Your task to perform on an android device: open wifi settings Image 0: 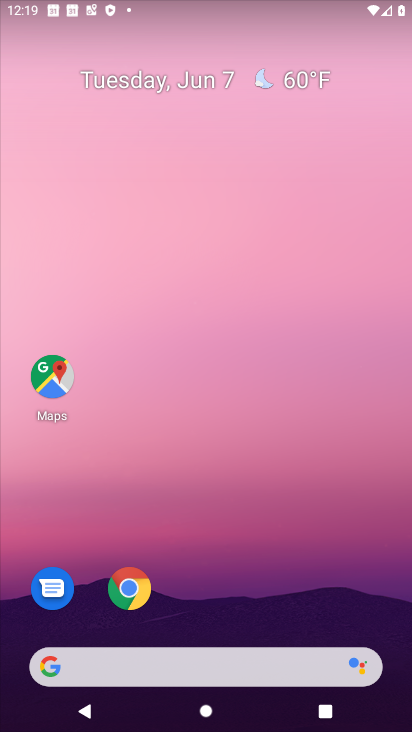
Step 0: drag from (126, 646) to (148, 145)
Your task to perform on an android device: open wifi settings Image 1: 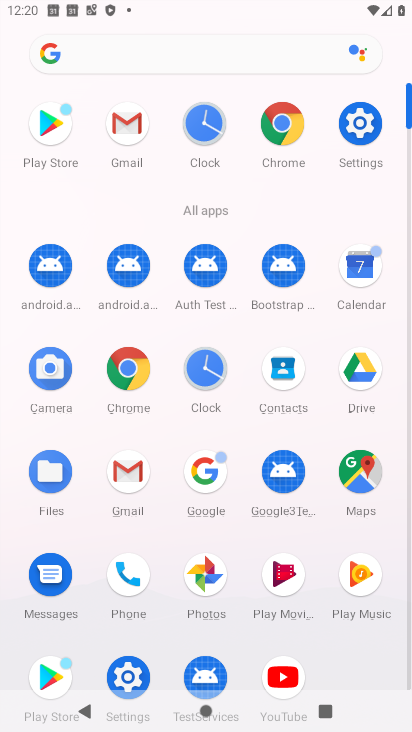
Step 1: click (373, 123)
Your task to perform on an android device: open wifi settings Image 2: 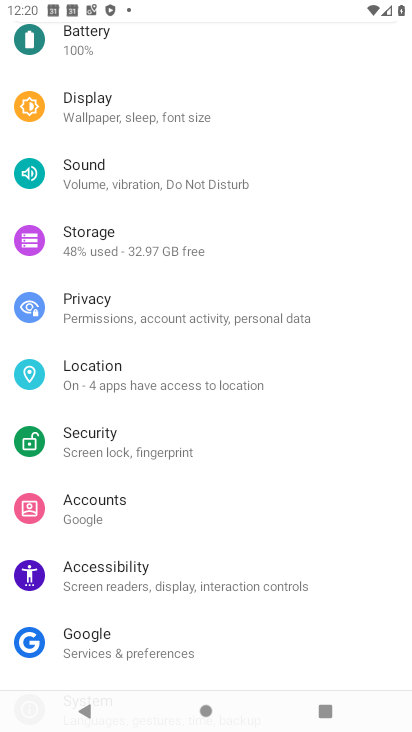
Step 2: drag from (179, 148) to (53, 695)
Your task to perform on an android device: open wifi settings Image 3: 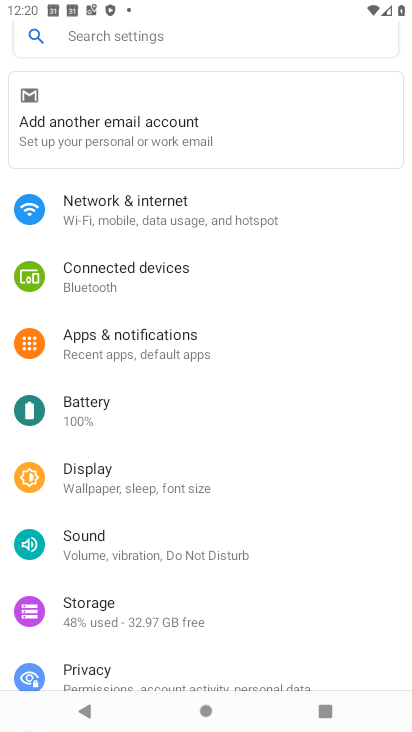
Step 3: click (209, 203)
Your task to perform on an android device: open wifi settings Image 4: 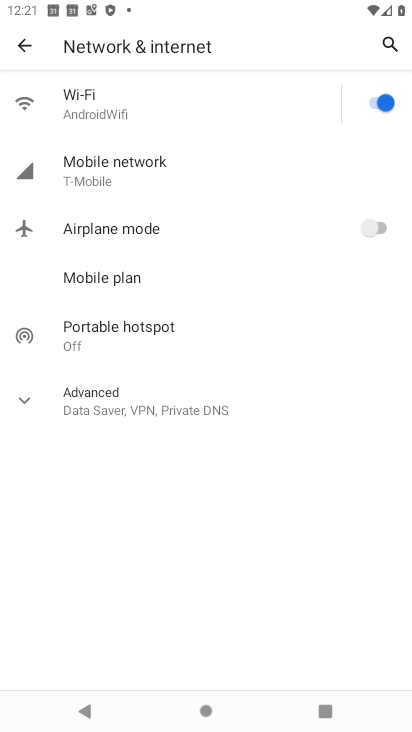
Step 4: click (130, 96)
Your task to perform on an android device: open wifi settings Image 5: 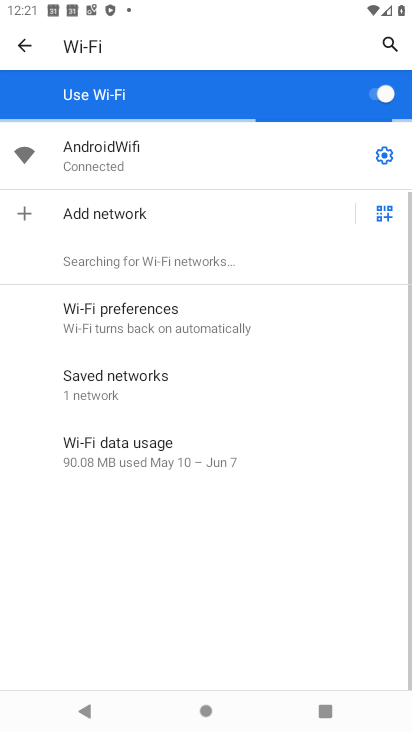
Step 5: click (380, 155)
Your task to perform on an android device: open wifi settings Image 6: 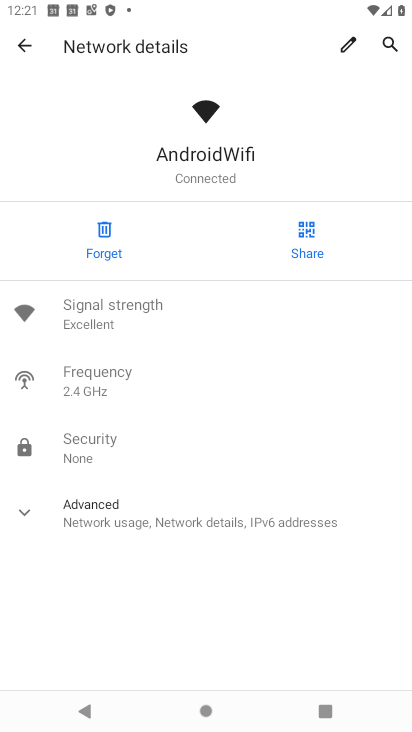
Step 6: task complete